Your task to perform on an android device: Open the calendar and show me this week's events? Image 0: 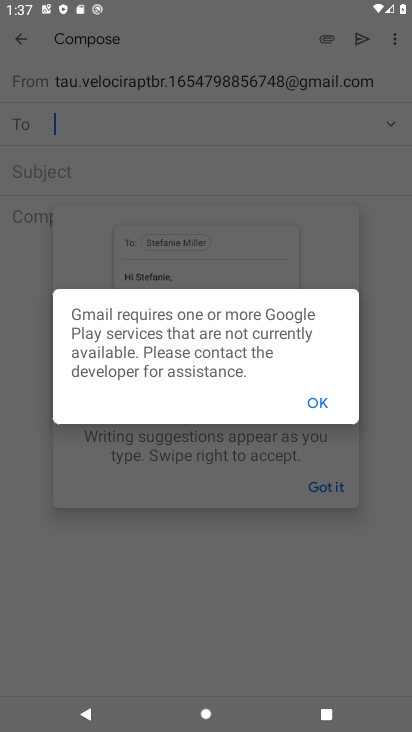
Step 0: press home button
Your task to perform on an android device: Open the calendar and show me this week's events? Image 1: 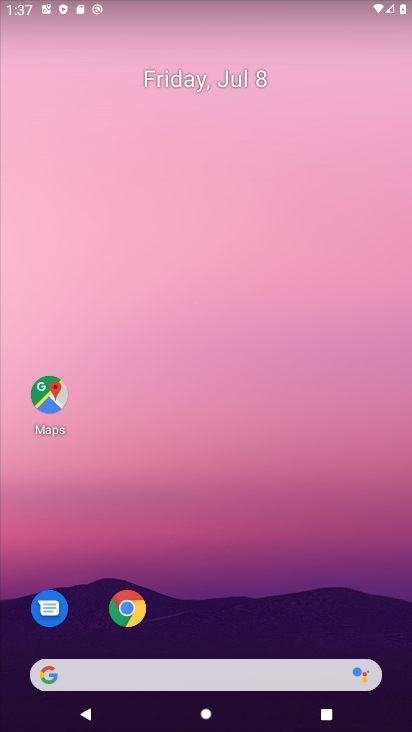
Step 1: drag from (364, 607) to (288, 4)
Your task to perform on an android device: Open the calendar and show me this week's events? Image 2: 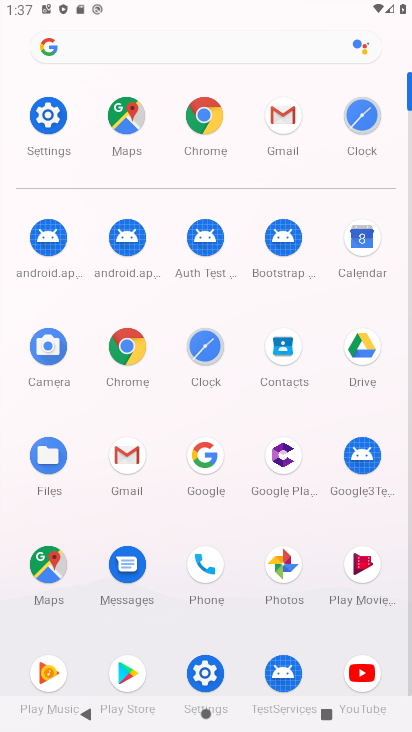
Step 2: click (359, 234)
Your task to perform on an android device: Open the calendar and show me this week's events? Image 3: 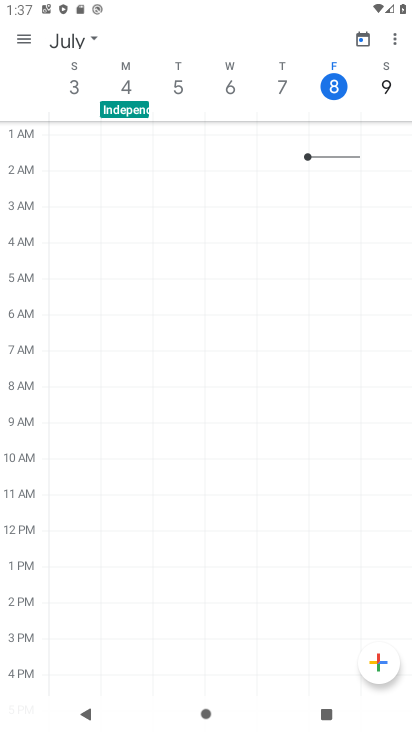
Step 3: task complete